Your task to perform on an android device: toggle location history Image 0: 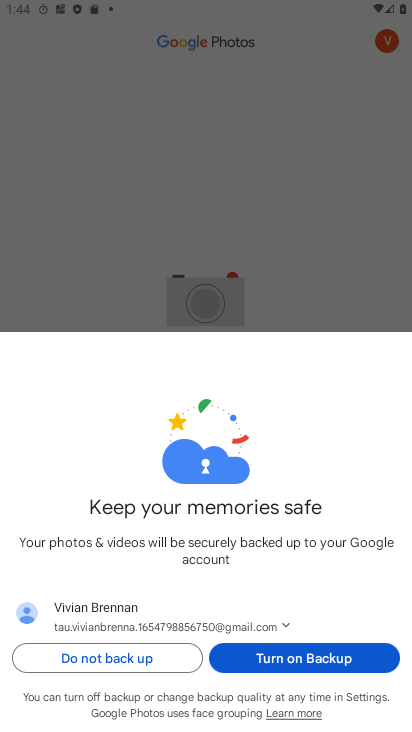
Step 0: press home button
Your task to perform on an android device: toggle location history Image 1: 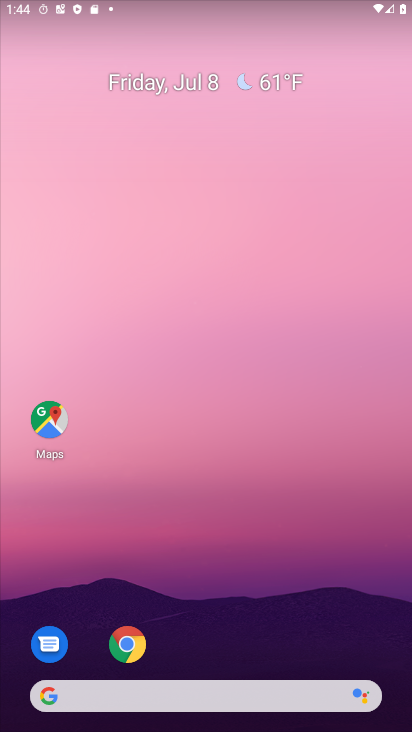
Step 1: click (210, 202)
Your task to perform on an android device: toggle location history Image 2: 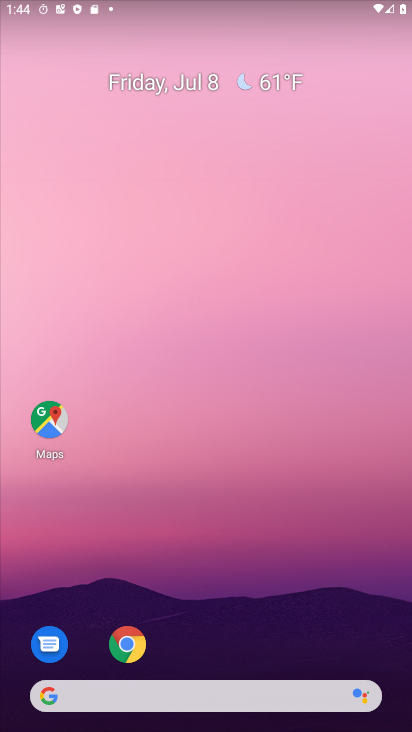
Step 2: drag from (203, 360) to (215, 142)
Your task to perform on an android device: toggle location history Image 3: 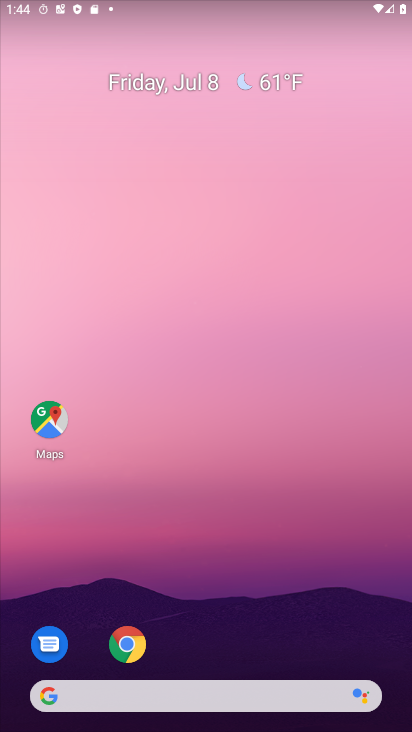
Step 3: drag from (182, 592) to (174, 204)
Your task to perform on an android device: toggle location history Image 4: 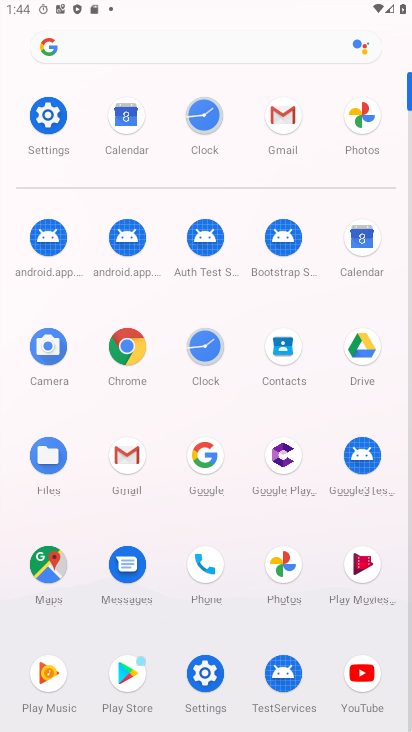
Step 4: click (43, 111)
Your task to perform on an android device: toggle location history Image 5: 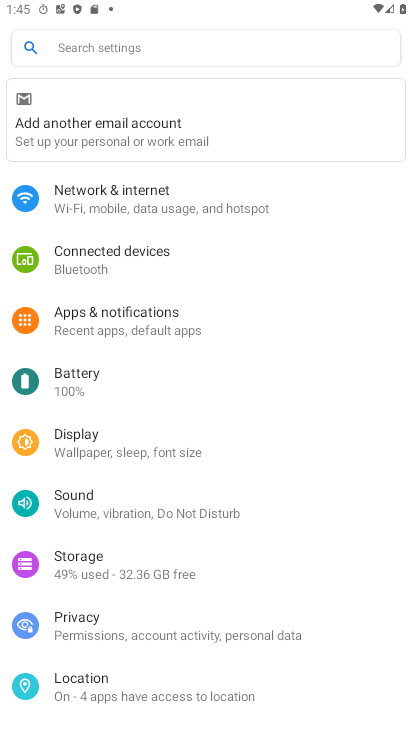
Step 5: click (77, 691)
Your task to perform on an android device: toggle location history Image 6: 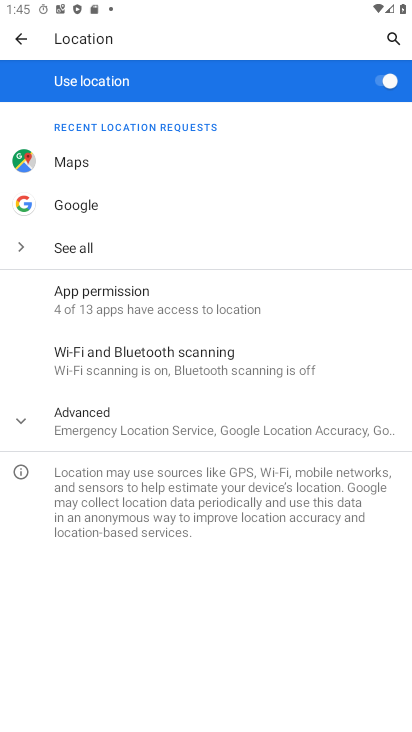
Step 6: click (133, 424)
Your task to perform on an android device: toggle location history Image 7: 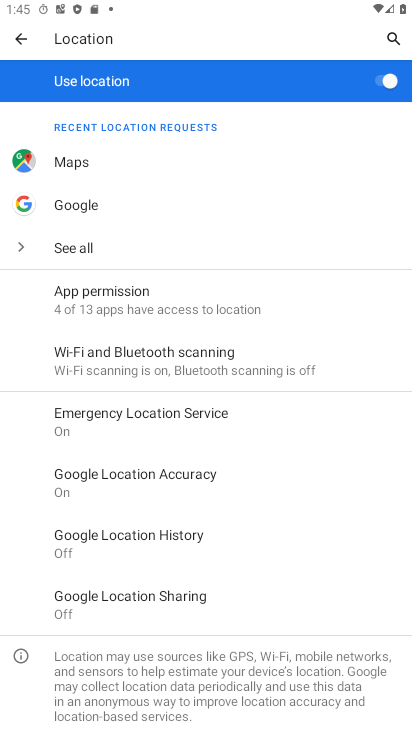
Step 7: click (124, 544)
Your task to perform on an android device: toggle location history Image 8: 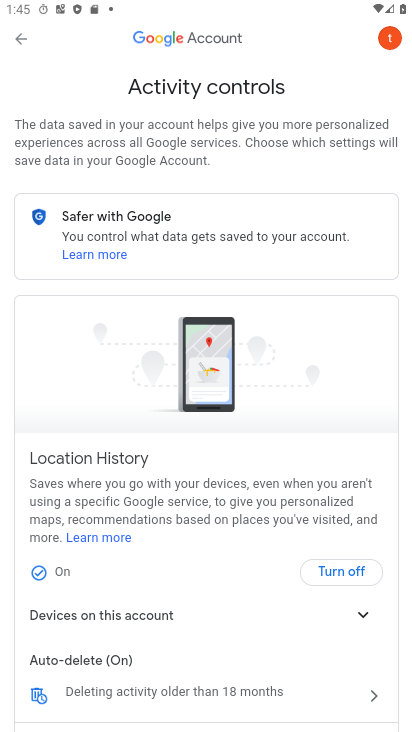
Step 8: click (344, 591)
Your task to perform on an android device: toggle location history Image 9: 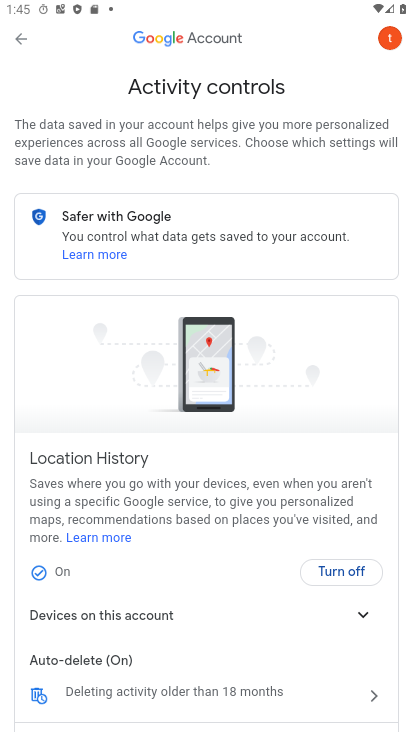
Step 9: click (344, 580)
Your task to perform on an android device: toggle location history Image 10: 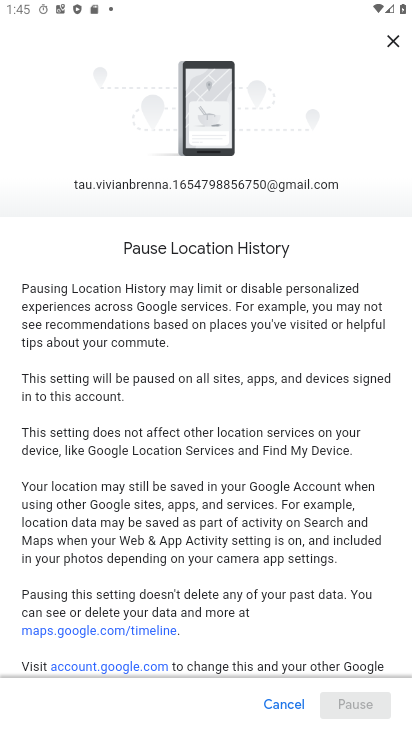
Step 10: drag from (272, 515) to (272, 324)
Your task to perform on an android device: toggle location history Image 11: 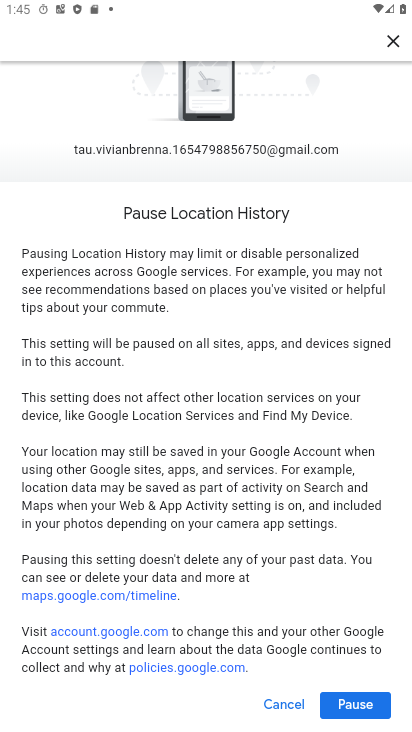
Step 11: click (360, 702)
Your task to perform on an android device: toggle location history Image 12: 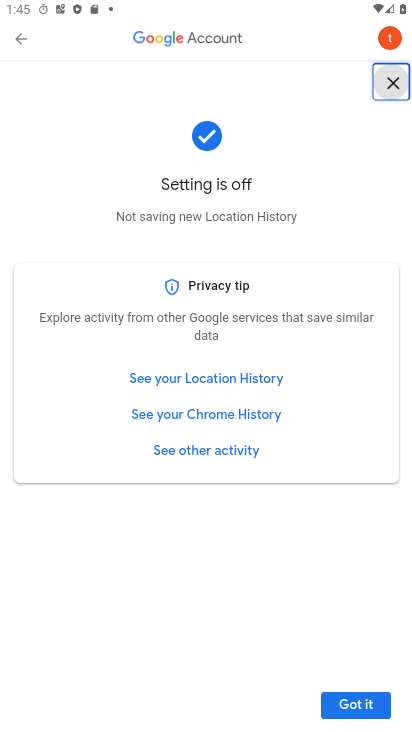
Step 12: click (360, 702)
Your task to perform on an android device: toggle location history Image 13: 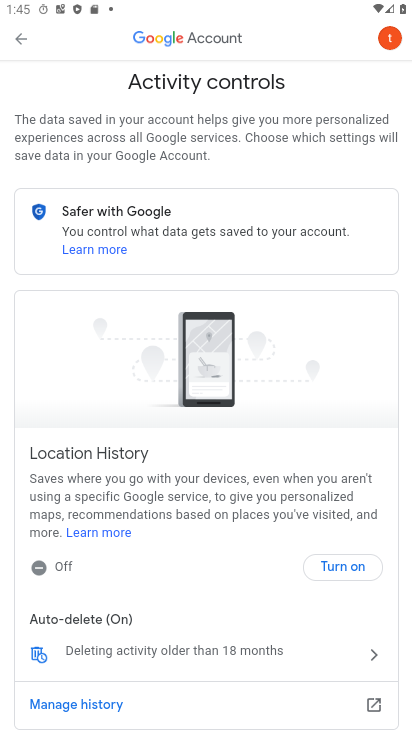
Step 13: task complete